Your task to perform on an android device: set an alarm Image 0: 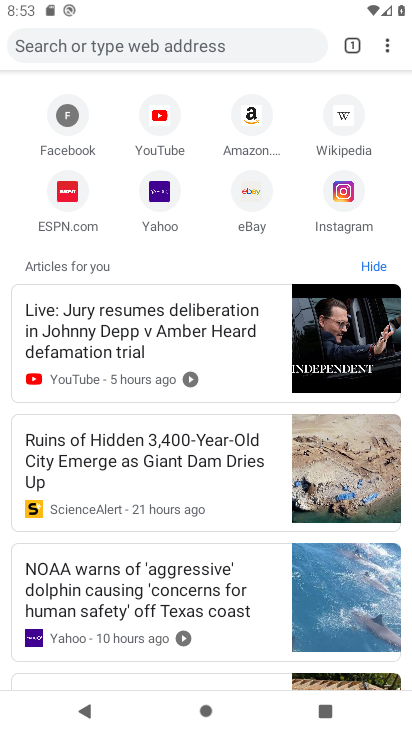
Step 0: press home button
Your task to perform on an android device: set an alarm Image 1: 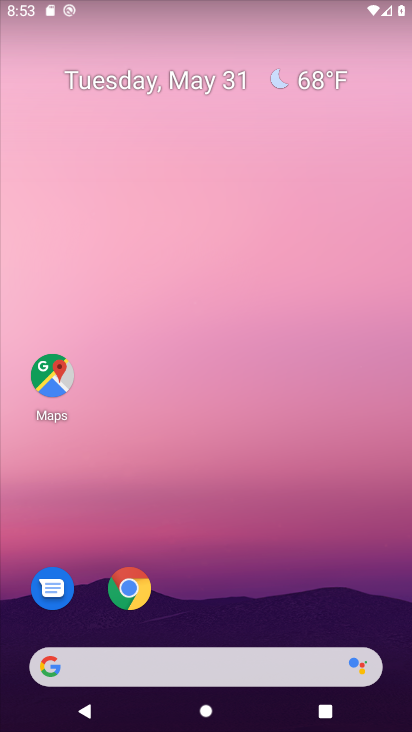
Step 1: drag from (199, 669) to (400, 64)
Your task to perform on an android device: set an alarm Image 2: 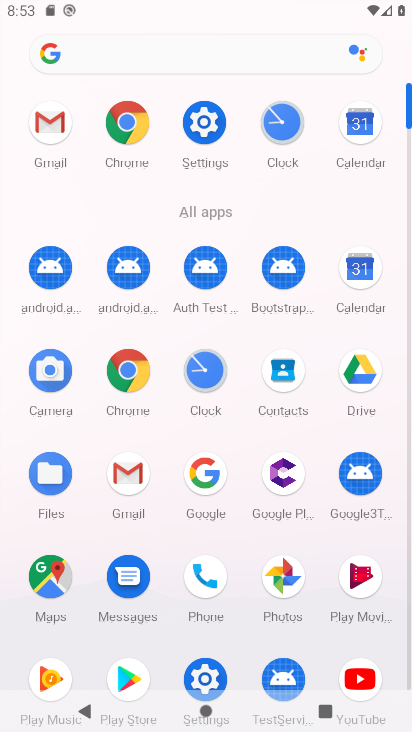
Step 2: click (208, 378)
Your task to perform on an android device: set an alarm Image 3: 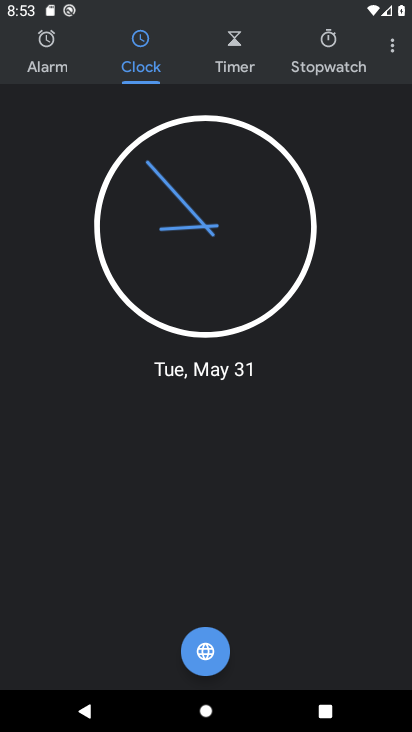
Step 3: click (52, 67)
Your task to perform on an android device: set an alarm Image 4: 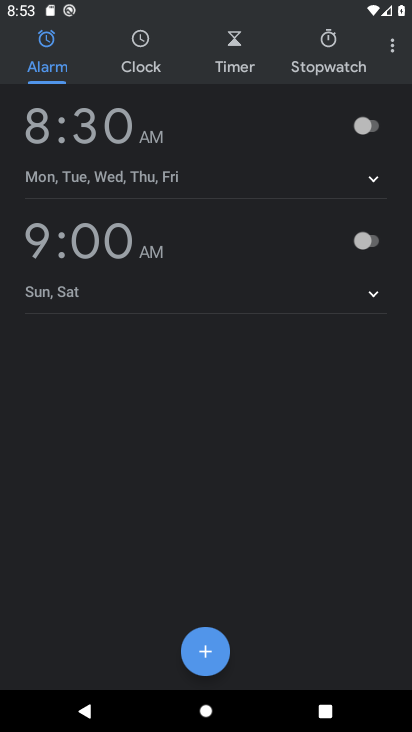
Step 4: click (372, 127)
Your task to perform on an android device: set an alarm Image 5: 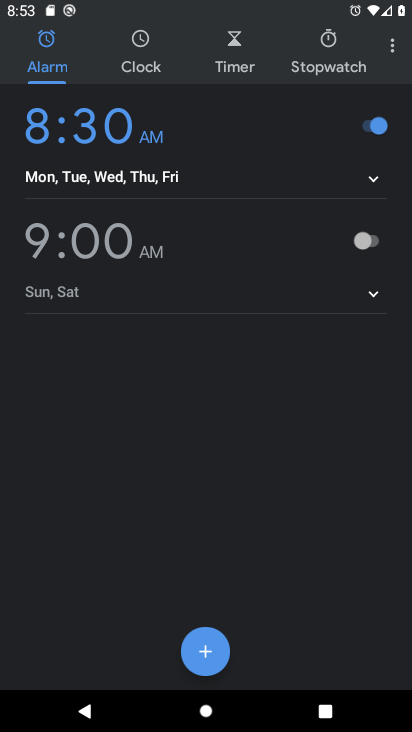
Step 5: task complete